Your task to perform on an android device: turn on the 24-hour format for clock Image 0: 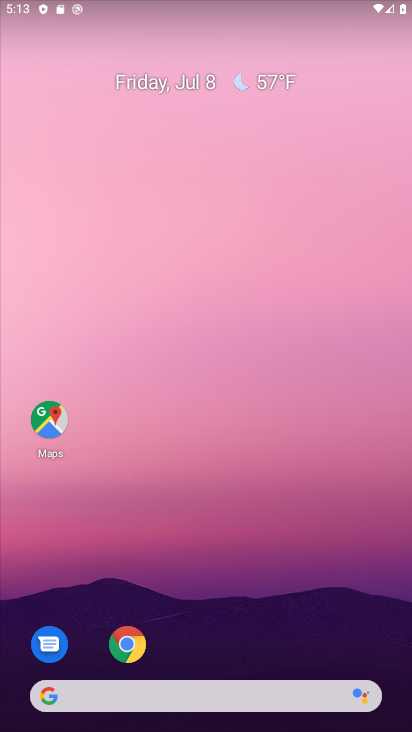
Step 0: drag from (197, 698) to (221, 98)
Your task to perform on an android device: turn on the 24-hour format for clock Image 1: 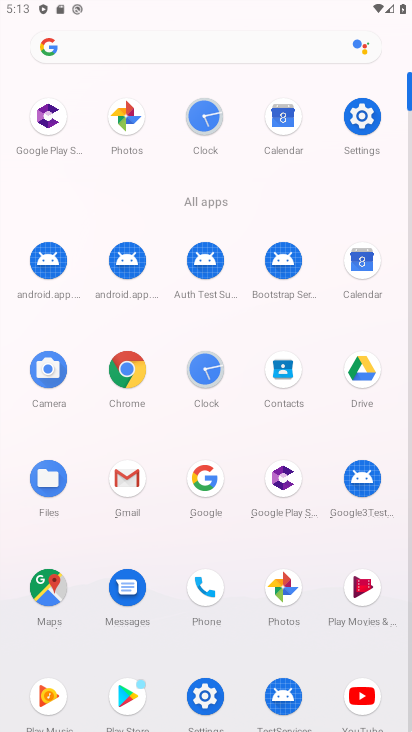
Step 1: click (202, 119)
Your task to perform on an android device: turn on the 24-hour format for clock Image 2: 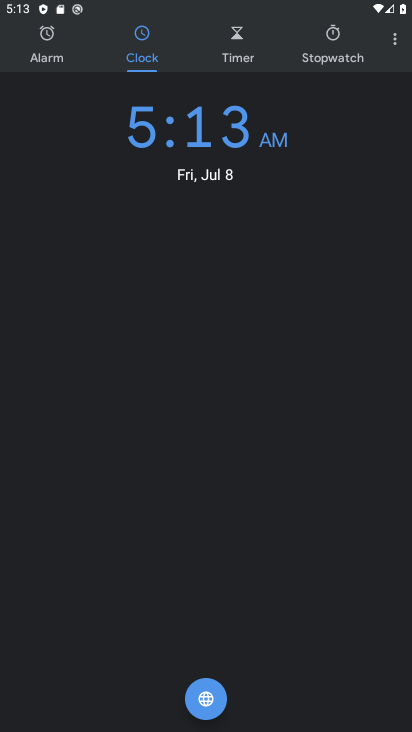
Step 2: click (391, 38)
Your task to perform on an android device: turn on the 24-hour format for clock Image 3: 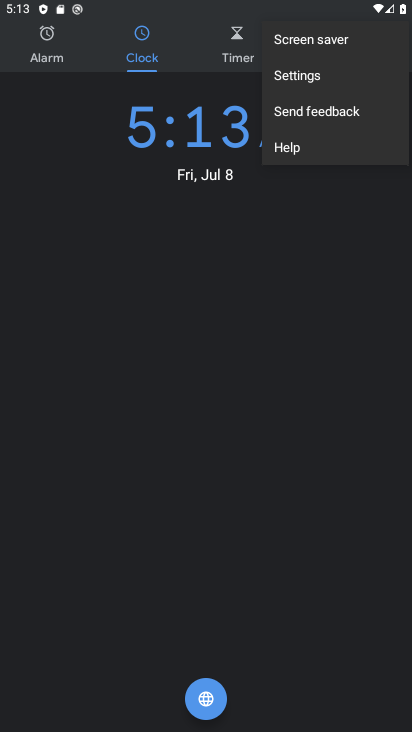
Step 3: click (311, 71)
Your task to perform on an android device: turn on the 24-hour format for clock Image 4: 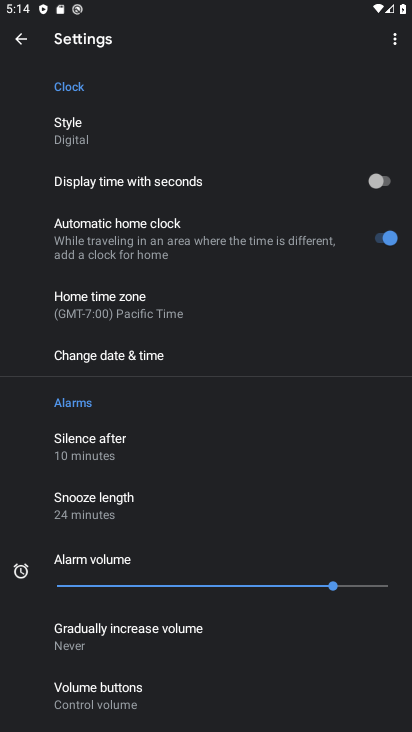
Step 4: click (114, 355)
Your task to perform on an android device: turn on the 24-hour format for clock Image 5: 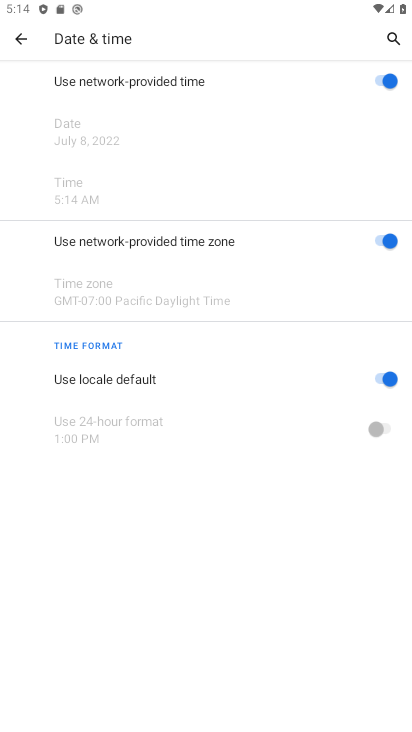
Step 5: click (379, 377)
Your task to perform on an android device: turn on the 24-hour format for clock Image 6: 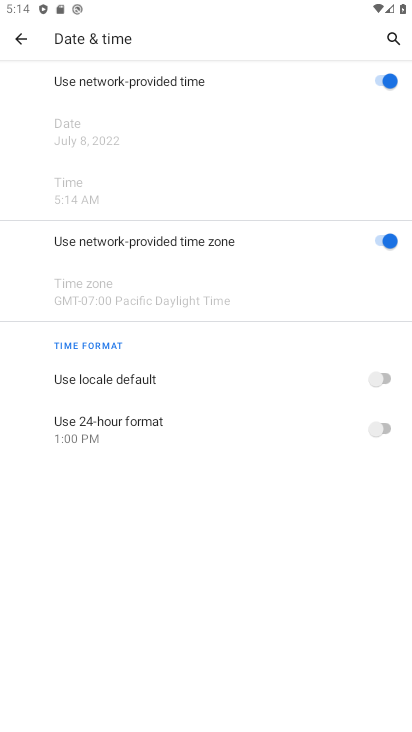
Step 6: click (379, 424)
Your task to perform on an android device: turn on the 24-hour format for clock Image 7: 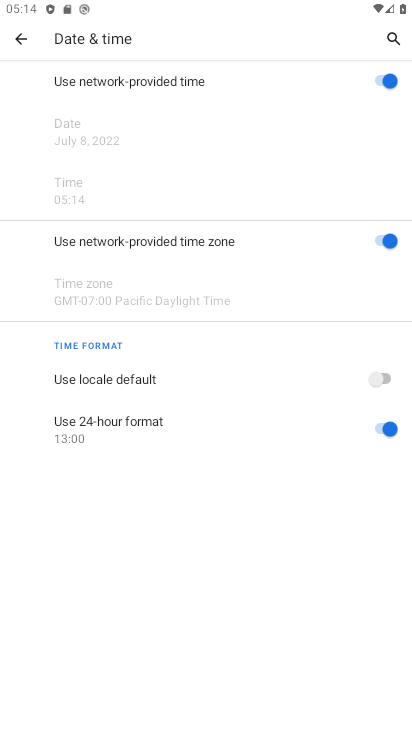
Step 7: task complete